Your task to perform on an android device: uninstall "Duolingo: language lessons" Image 0: 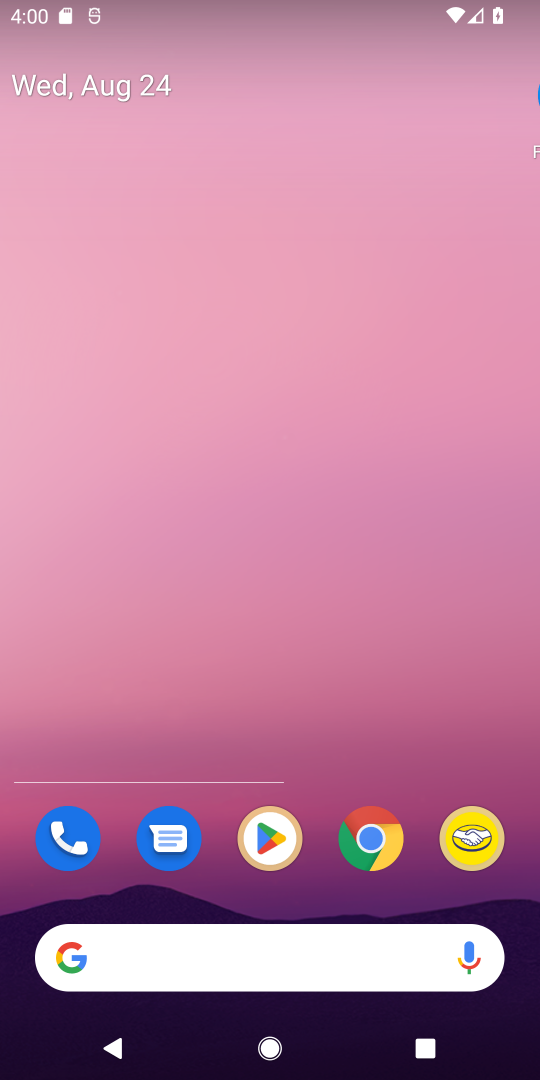
Step 0: press home button
Your task to perform on an android device: uninstall "Duolingo: language lessons" Image 1: 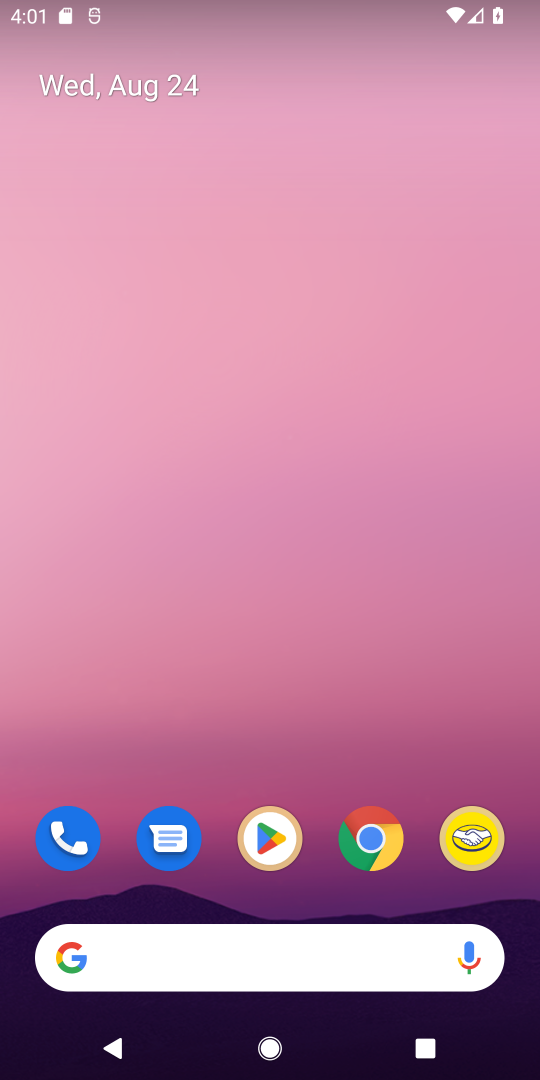
Step 1: click (263, 827)
Your task to perform on an android device: uninstall "Duolingo: language lessons" Image 2: 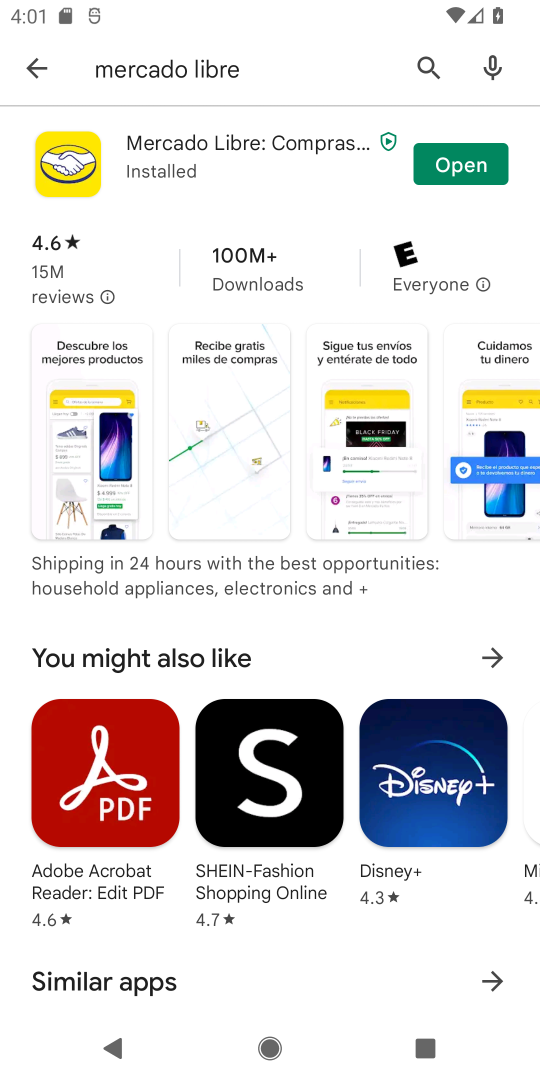
Step 2: click (417, 55)
Your task to perform on an android device: uninstall "Duolingo: language lessons" Image 3: 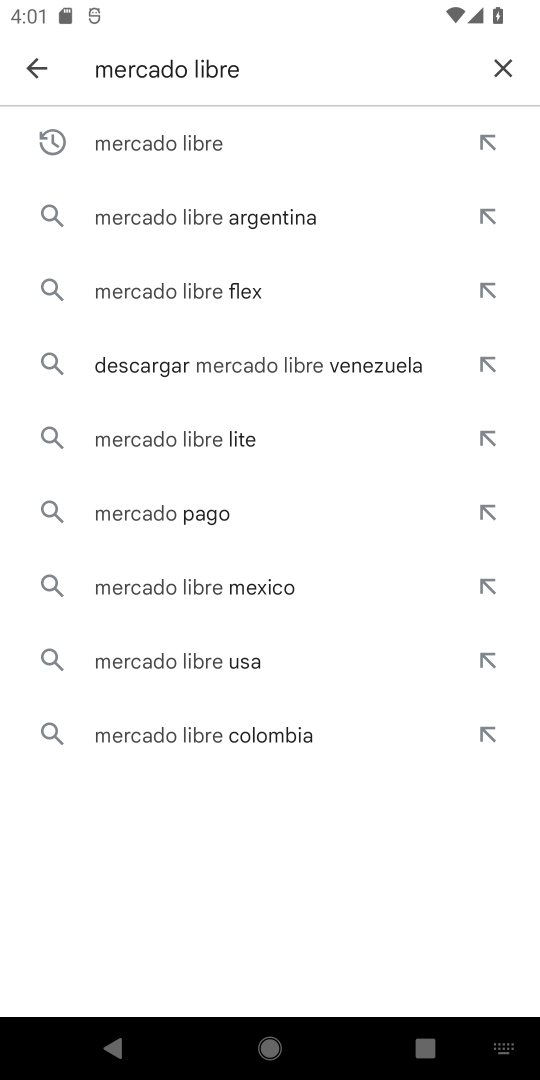
Step 3: click (497, 65)
Your task to perform on an android device: uninstall "Duolingo: language lessons" Image 4: 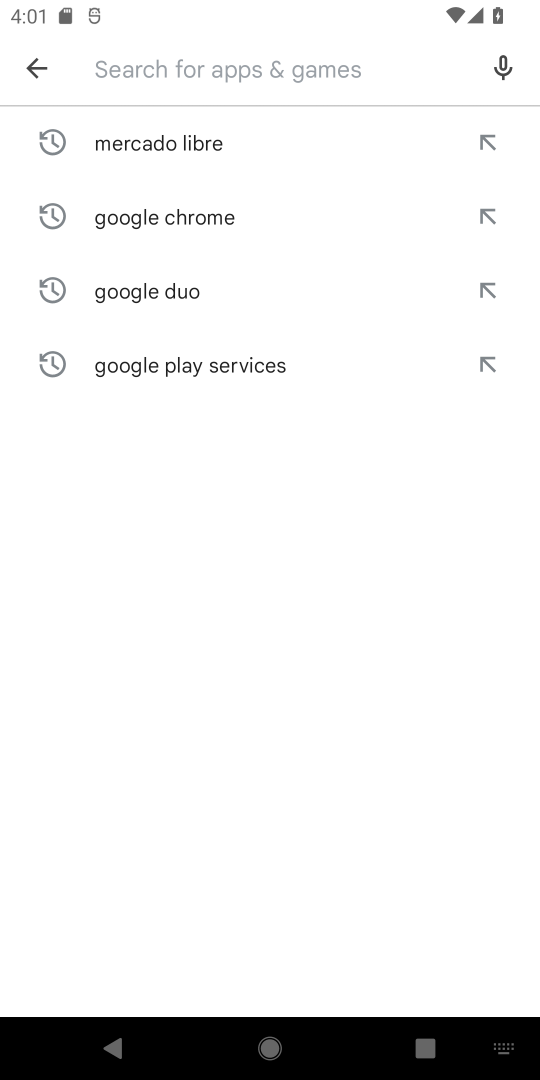
Step 4: type "Duolingo: language lessons"
Your task to perform on an android device: uninstall "Duolingo: language lessons" Image 5: 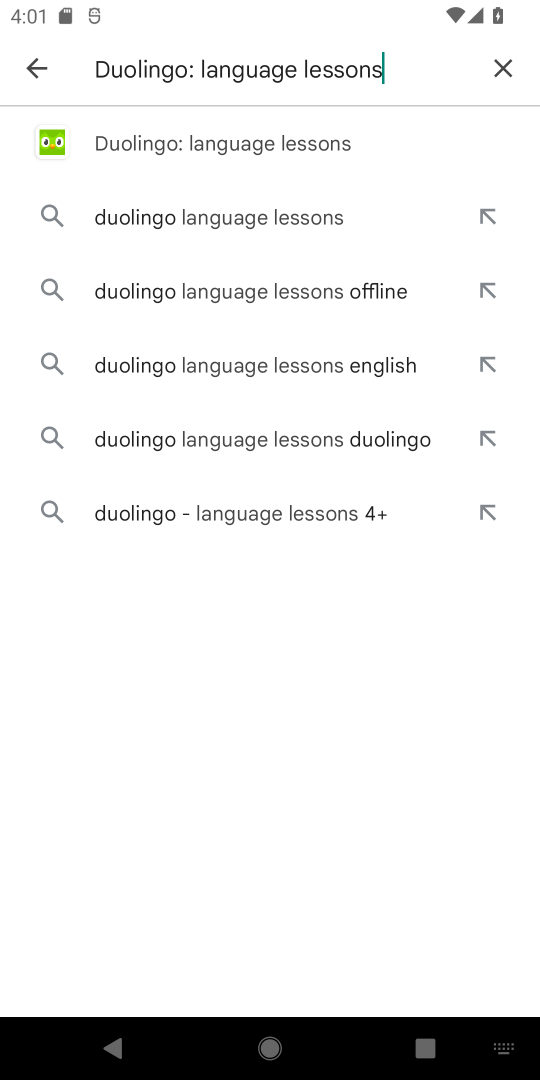
Step 5: click (184, 139)
Your task to perform on an android device: uninstall "Duolingo: language lessons" Image 6: 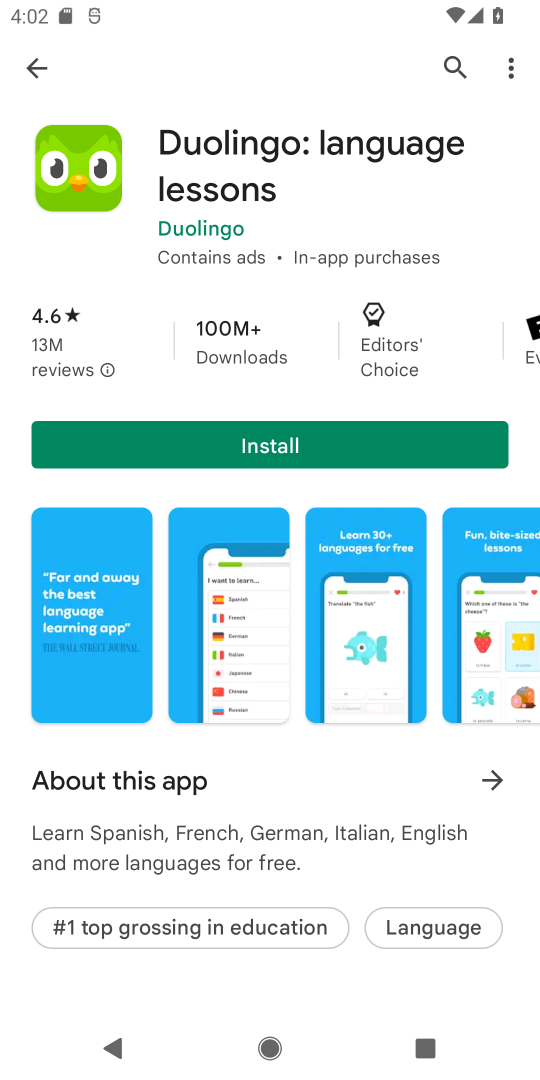
Step 6: task complete